Your task to perform on an android device: What's the weather going to be this weekend? Image 0: 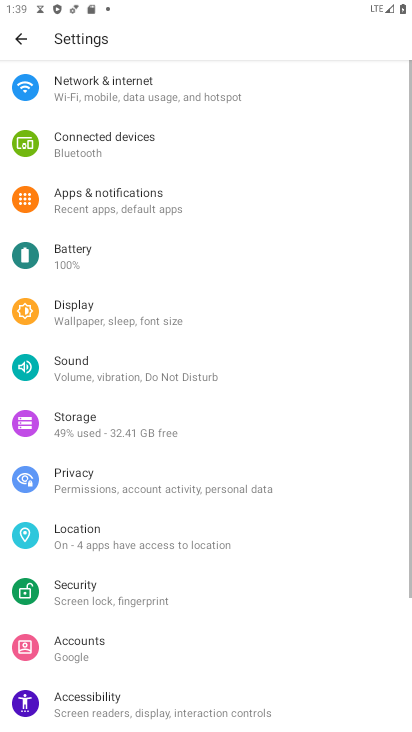
Step 0: press home button
Your task to perform on an android device: What's the weather going to be this weekend? Image 1: 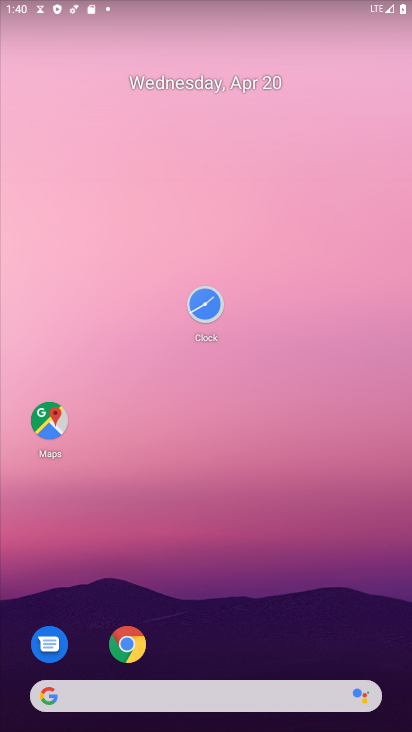
Step 1: drag from (274, 581) to (333, 205)
Your task to perform on an android device: What's the weather going to be this weekend? Image 2: 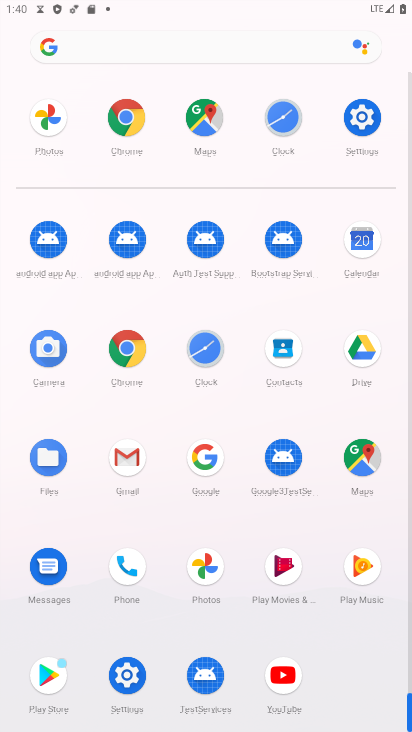
Step 2: click (126, 345)
Your task to perform on an android device: What's the weather going to be this weekend? Image 3: 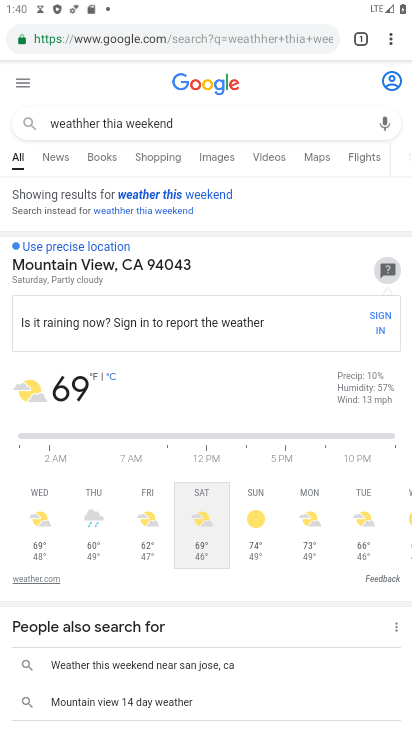
Step 3: task complete